Your task to perform on an android device: make emails show in primary in the gmail app Image 0: 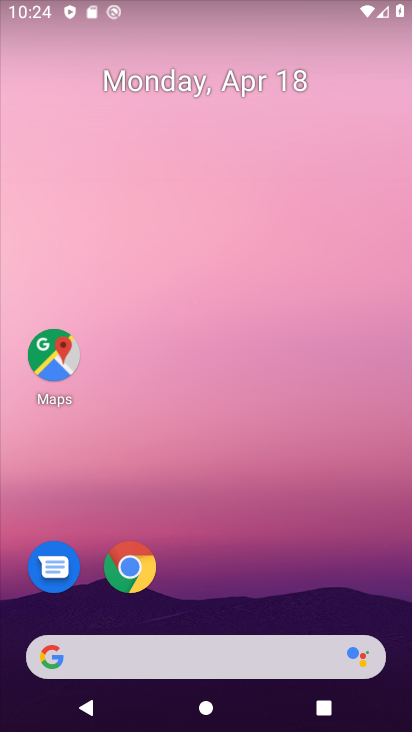
Step 0: drag from (193, 614) to (224, 128)
Your task to perform on an android device: make emails show in primary in the gmail app Image 1: 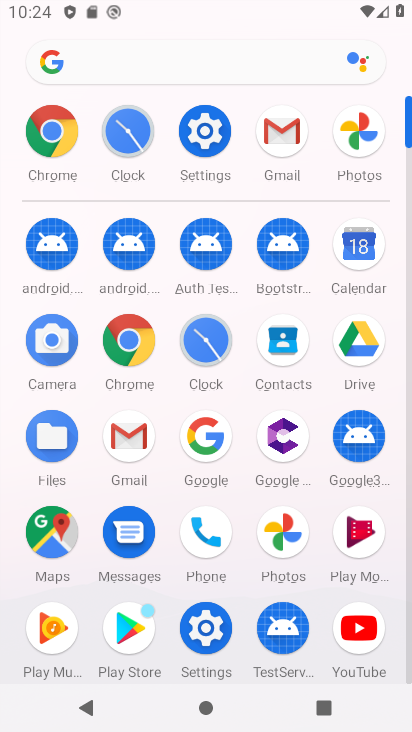
Step 1: click (294, 132)
Your task to perform on an android device: make emails show in primary in the gmail app Image 2: 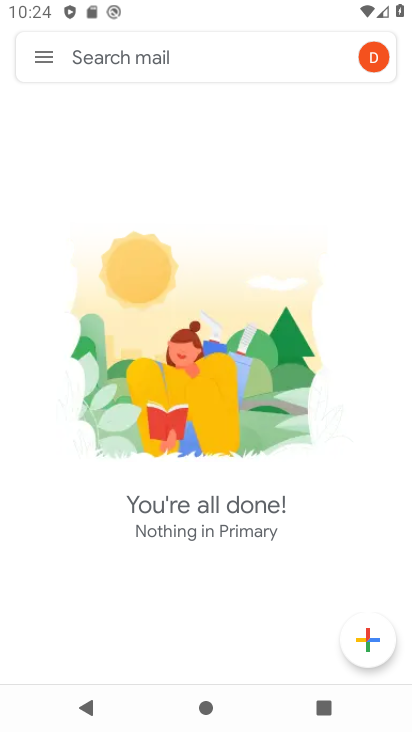
Step 2: click (51, 56)
Your task to perform on an android device: make emails show in primary in the gmail app Image 3: 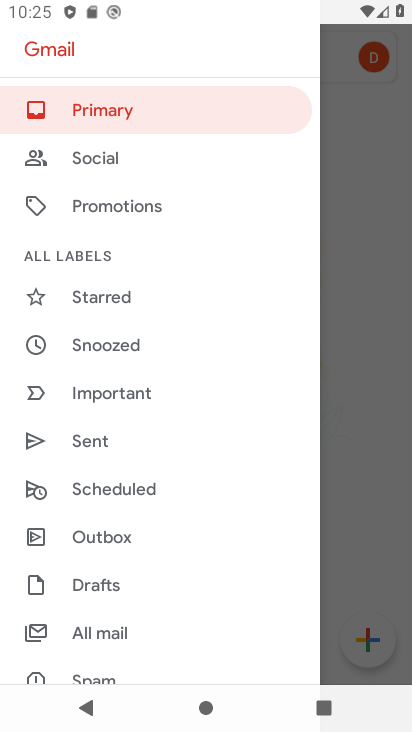
Step 3: task complete